Your task to perform on an android device: open a new tab in the chrome app Image 0: 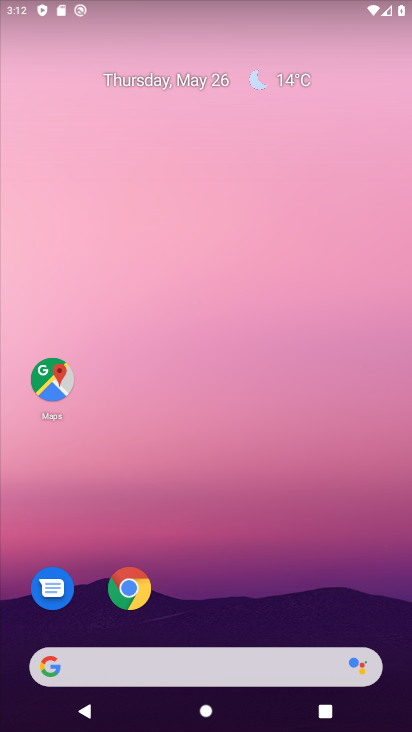
Step 0: click (147, 602)
Your task to perform on an android device: open a new tab in the chrome app Image 1: 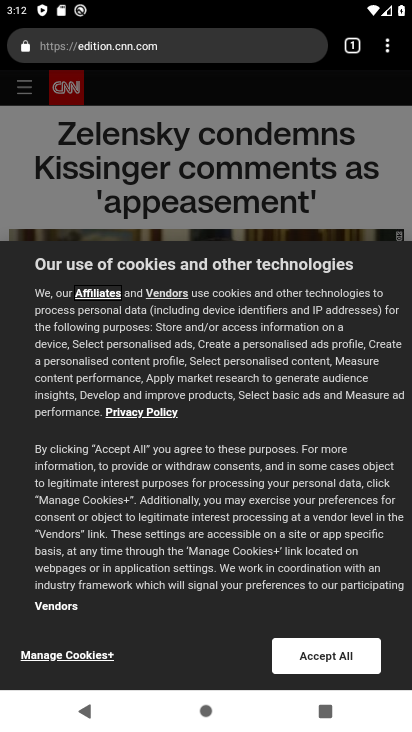
Step 1: click (352, 49)
Your task to perform on an android device: open a new tab in the chrome app Image 2: 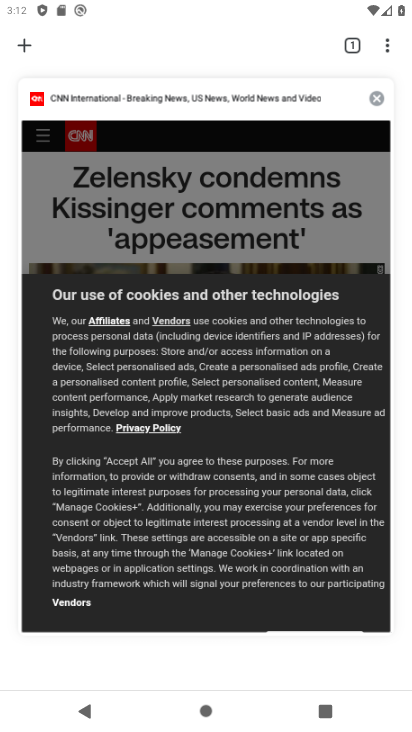
Step 2: click (29, 43)
Your task to perform on an android device: open a new tab in the chrome app Image 3: 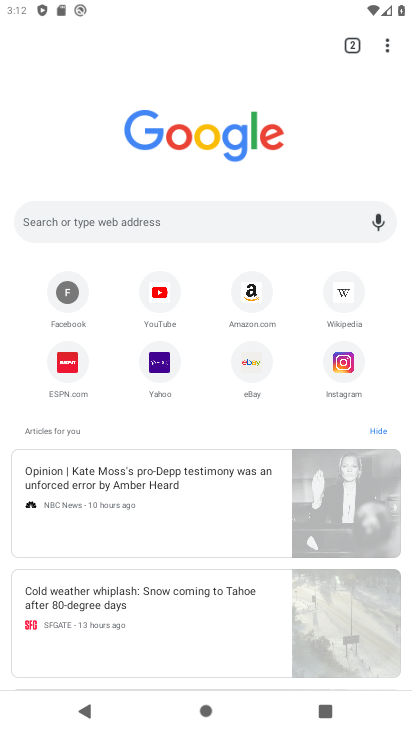
Step 3: task complete